Your task to perform on an android device: Search for the best rated vacuums on Target Image 0: 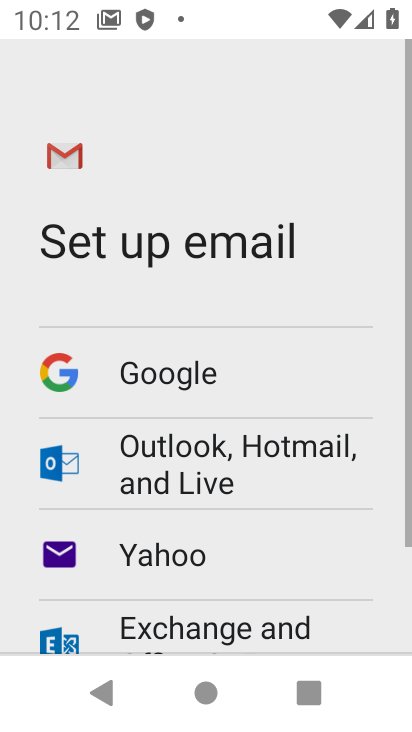
Step 0: press home button
Your task to perform on an android device: Search for the best rated vacuums on Target Image 1: 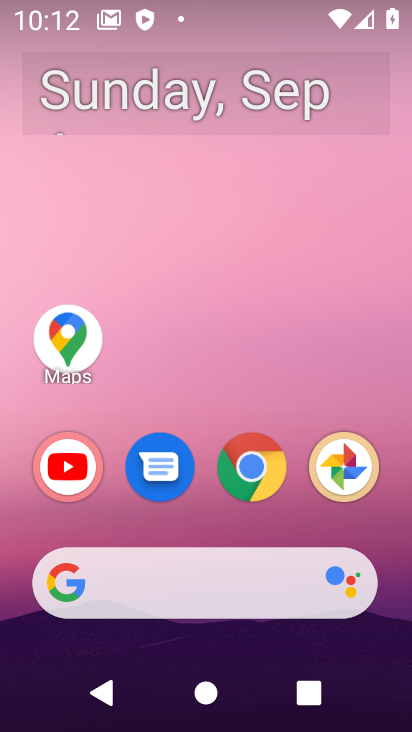
Step 1: click (269, 466)
Your task to perform on an android device: Search for the best rated vacuums on Target Image 2: 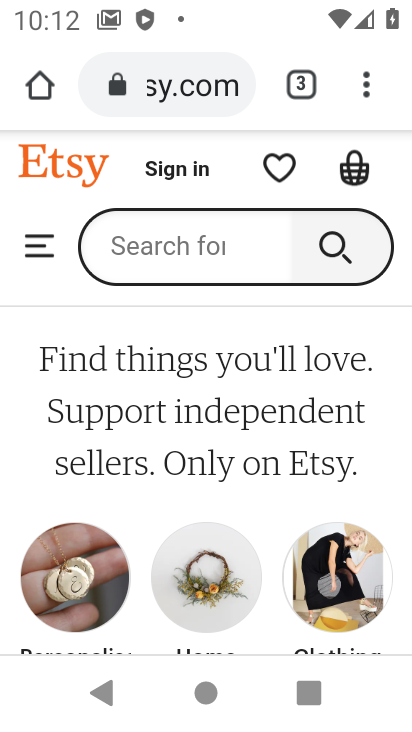
Step 2: click (157, 83)
Your task to perform on an android device: Search for the best rated vacuums on Target Image 3: 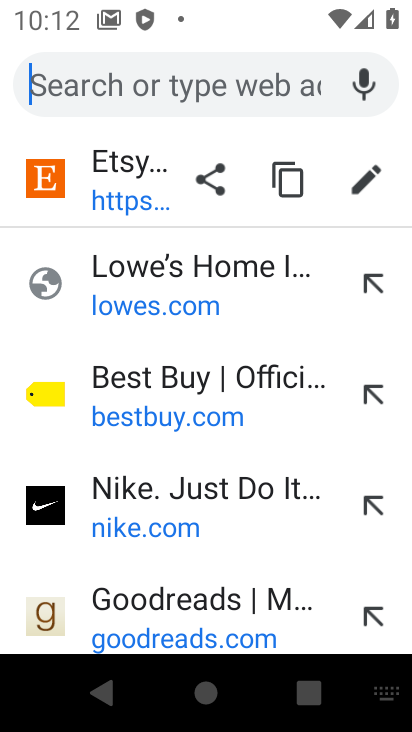
Step 3: type "target"
Your task to perform on an android device: Search for the best rated vacuums on Target Image 4: 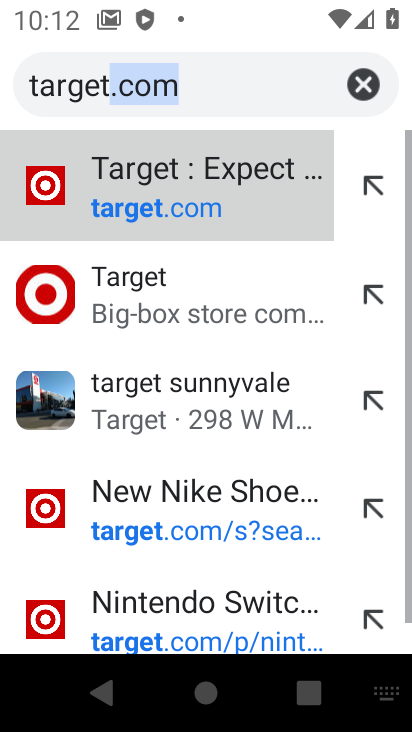
Step 4: type ""
Your task to perform on an android device: Search for the best rated vacuums on Target Image 5: 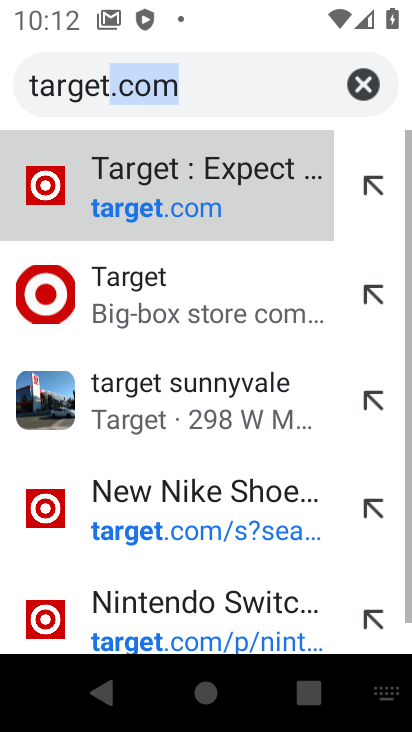
Step 5: click (120, 223)
Your task to perform on an android device: Search for the best rated vacuums on Target Image 6: 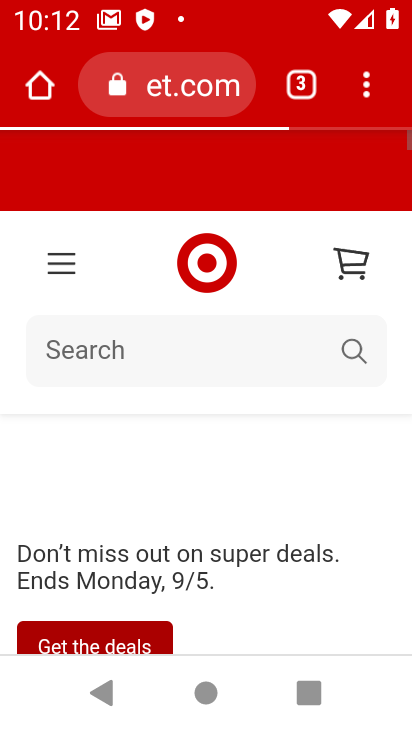
Step 6: click (183, 250)
Your task to perform on an android device: Search for the best rated vacuums on Target Image 7: 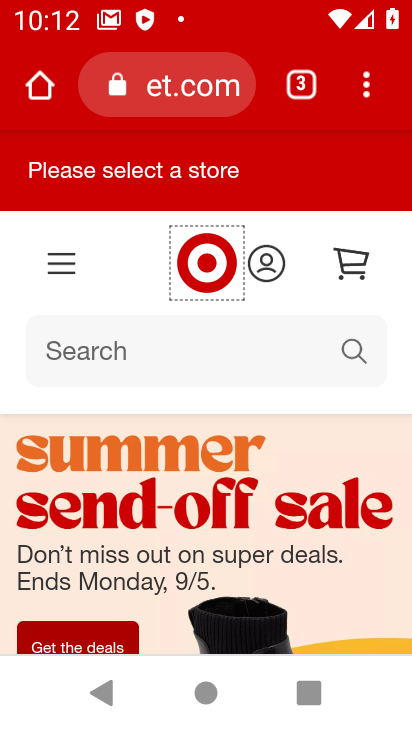
Step 7: click (219, 337)
Your task to perform on an android device: Search for the best rated vacuums on Target Image 8: 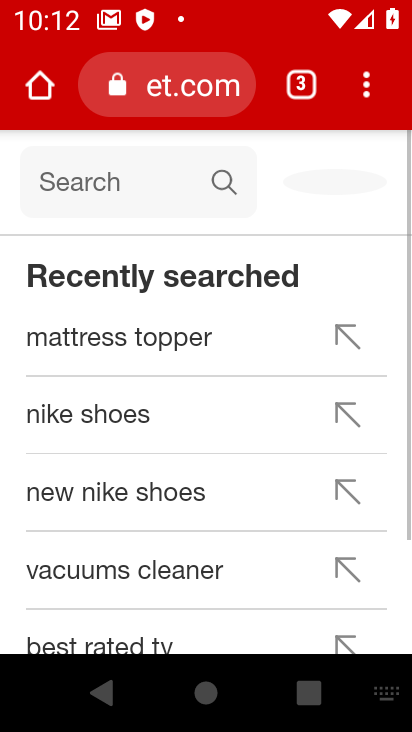
Step 8: click (351, 348)
Your task to perform on an android device: Search for the best rated vacuums on Target Image 9: 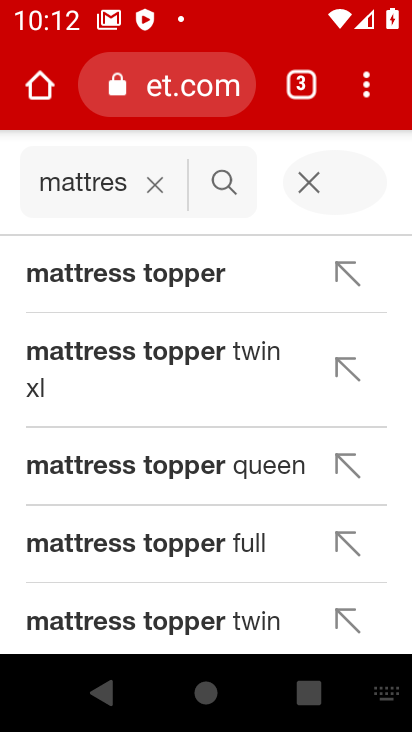
Step 9: click (158, 185)
Your task to perform on an android device: Search for the best rated vacuums on Target Image 10: 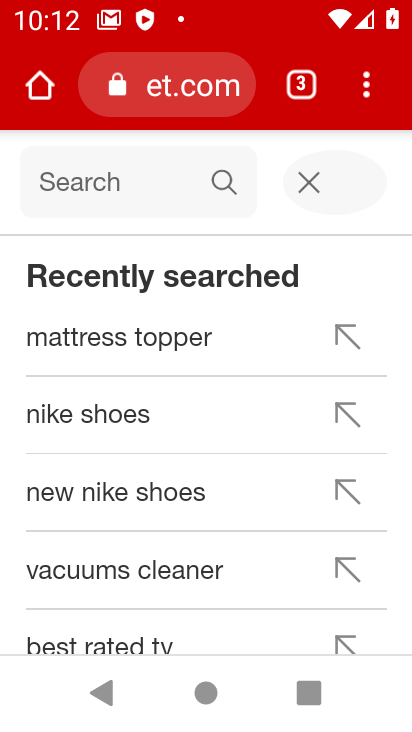
Step 10: click (89, 191)
Your task to perform on an android device: Search for the best rated vacuums on Target Image 11: 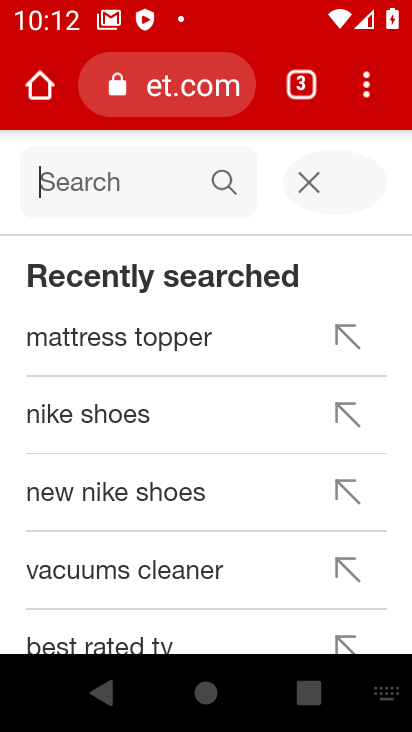
Step 11: type "vaccums"
Your task to perform on an android device: Search for the best rated vacuums on Target Image 12: 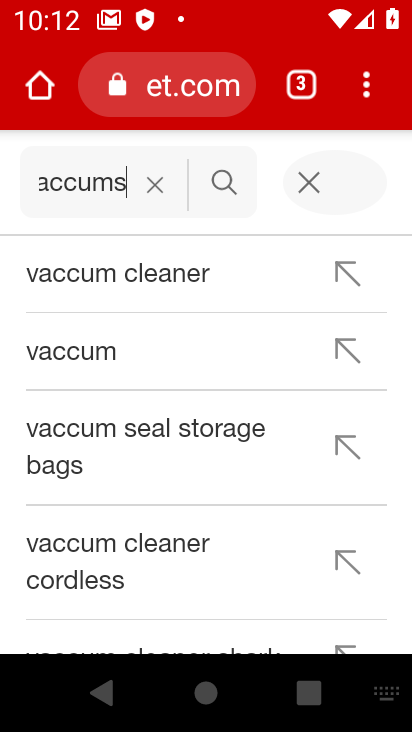
Step 12: type ""
Your task to perform on an android device: Search for the best rated vacuums on Target Image 13: 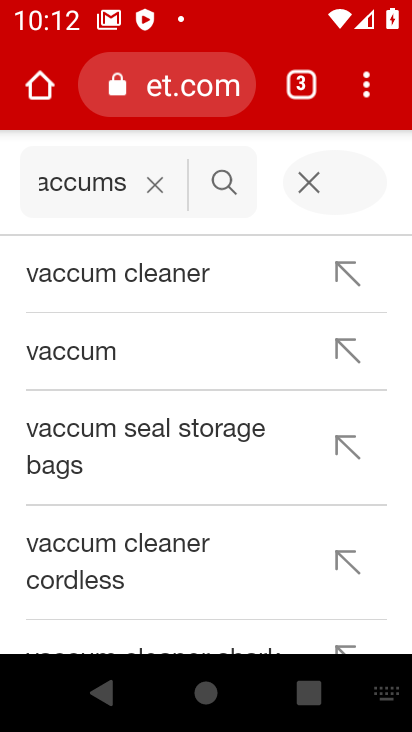
Step 13: click (68, 350)
Your task to perform on an android device: Search for the best rated vacuums on Target Image 14: 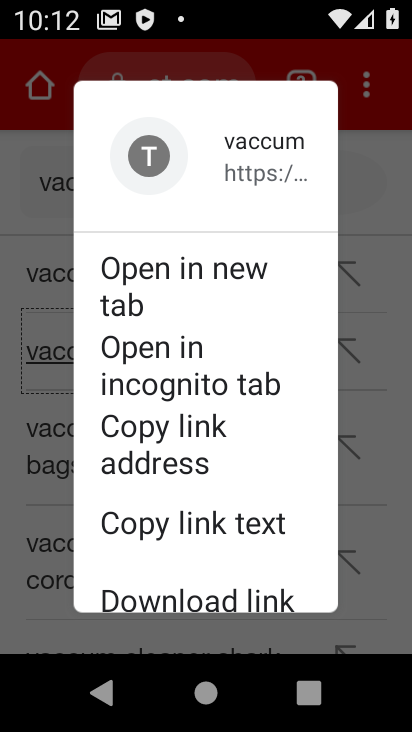
Step 14: click (406, 384)
Your task to perform on an android device: Search for the best rated vacuums on Target Image 15: 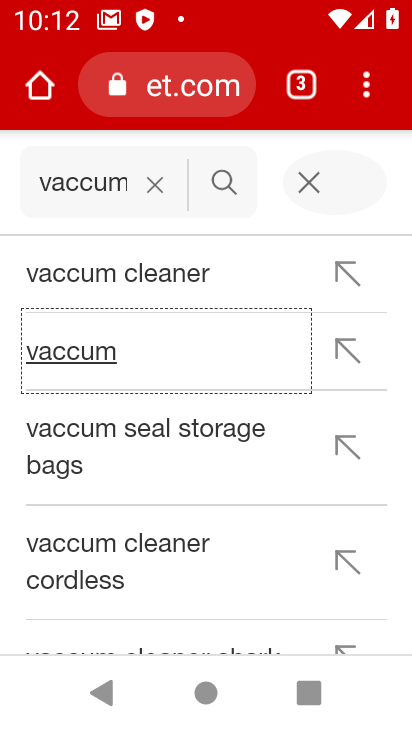
Step 15: press enter
Your task to perform on an android device: Search for the best rated vacuums on Target Image 16: 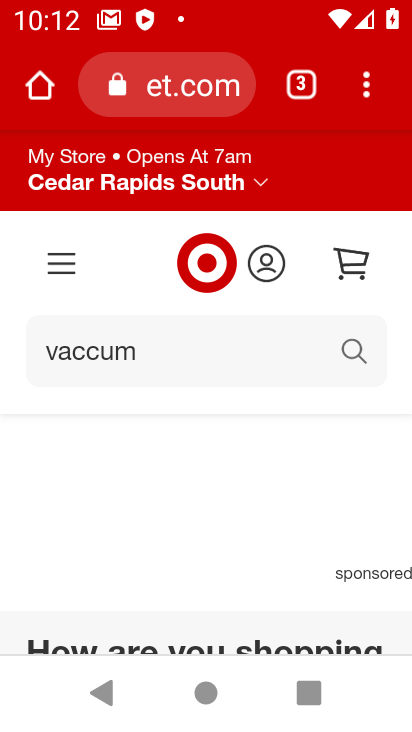
Step 16: drag from (236, 547) to (309, 140)
Your task to perform on an android device: Search for the best rated vacuums on Target Image 17: 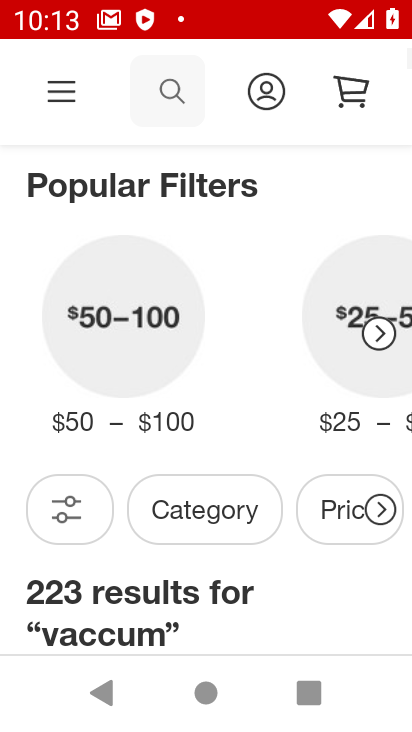
Step 17: drag from (349, 447) to (378, 228)
Your task to perform on an android device: Search for the best rated vacuums on Target Image 18: 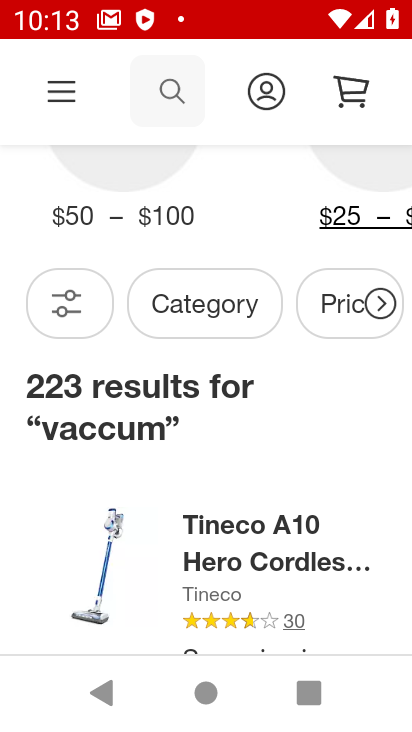
Step 18: click (377, 298)
Your task to perform on an android device: Search for the best rated vacuums on Target Image 19: 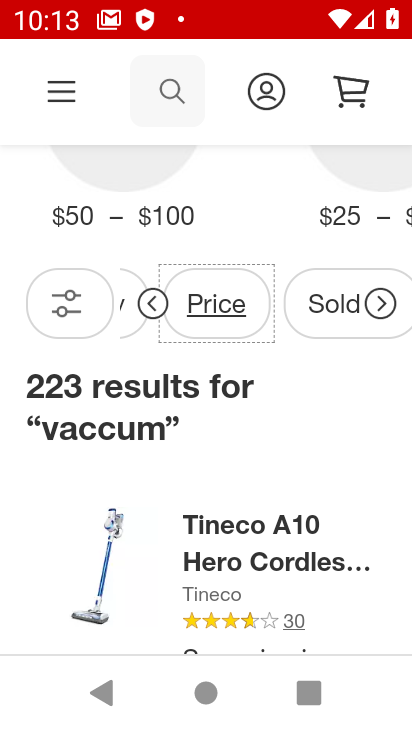
Step 19: click (377, 298)
Your task to perform on an android device: Search for the best rated vacuums on Target Image 20: 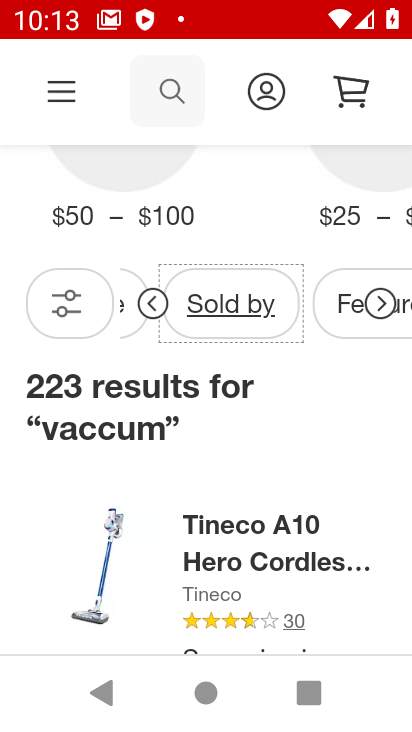
Step 20: click (377, 298)
Your task to perform on an android device: Search for the best rated vacuums on Target Image 21: 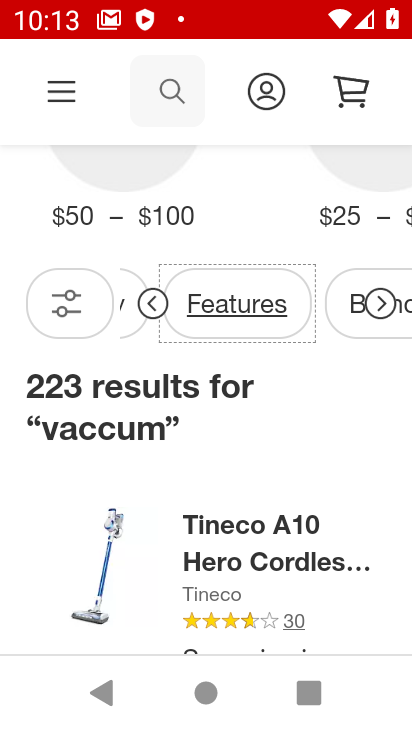
Step 21: click (377, 298)
Your task to perform on an android device: Search for the best rated vacuums on Target Image 22: 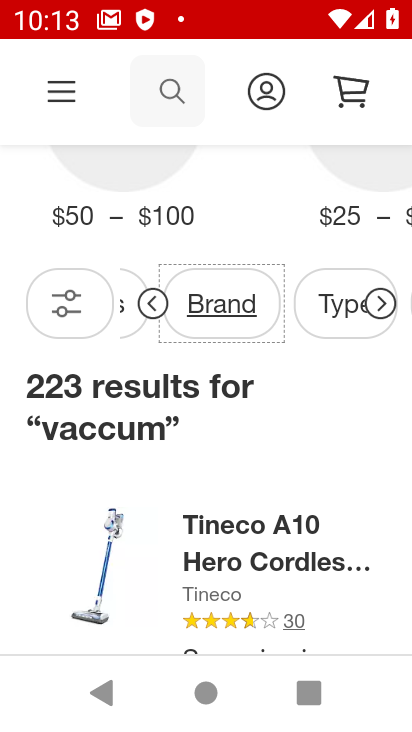
Step 22: click (192, 294)
Your task to perform on an android device: Search for the best rated vacuums on Target Image 23: 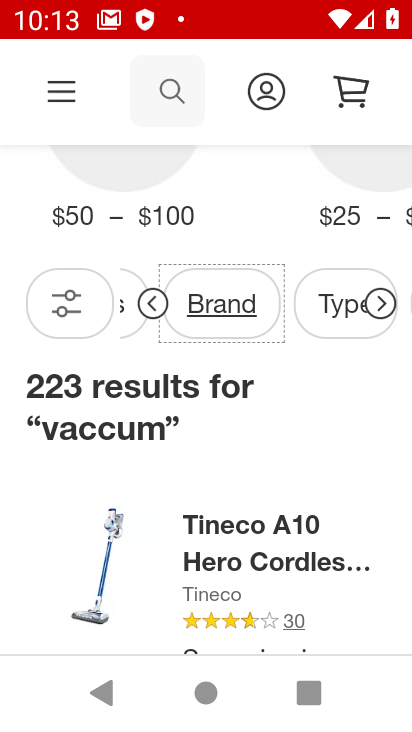
Step 23: click (205, 307)
Your task to perform on an android device: Search for the best rated vacuums on Target Image 24: 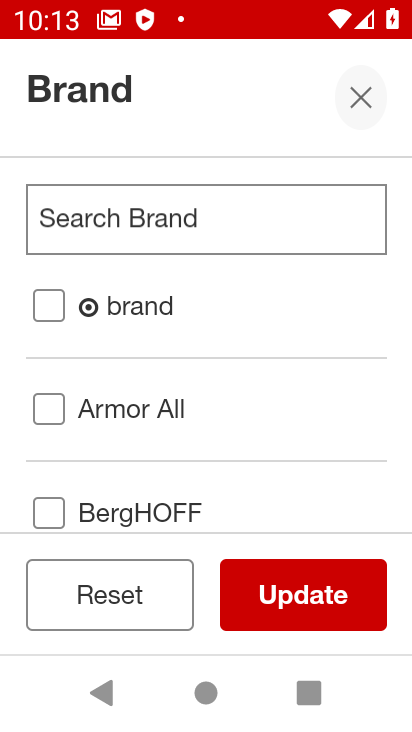
Step 24: drag from (241, 446) to (271, 224)
Your task to perform on an android device: Search for the best rated vacuums on Target Image 25: 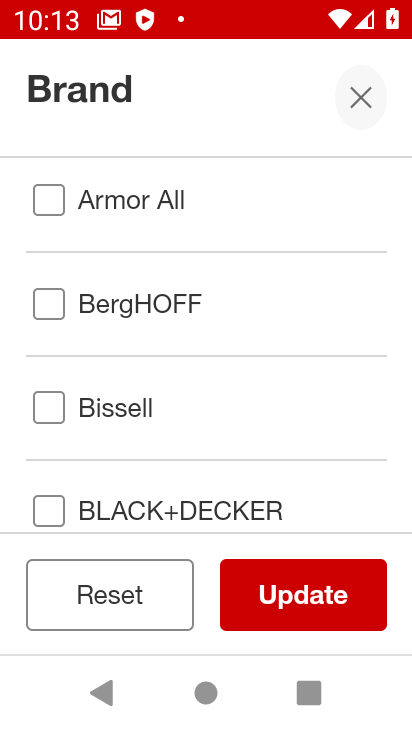
Step 25: drag from (267, 277) to (272, 541)
Your task to perform on an android device: Search for the best rated vacuums on Target Image 26: 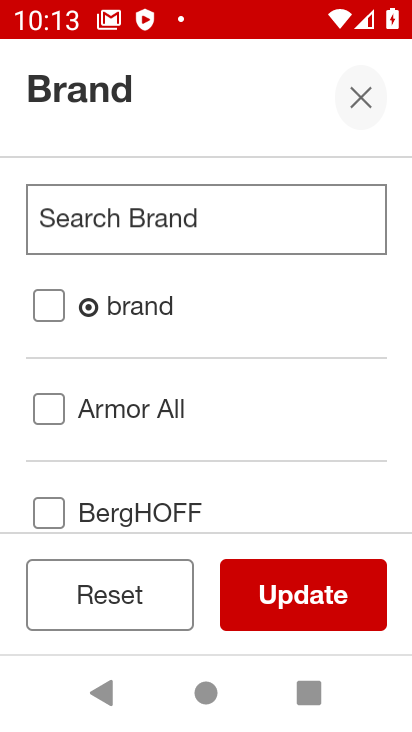
Step 26: drag from (198, 449) to (309, 183)
Your task to perform on an android device: Search for the best rated vacuums on Target Image 27: 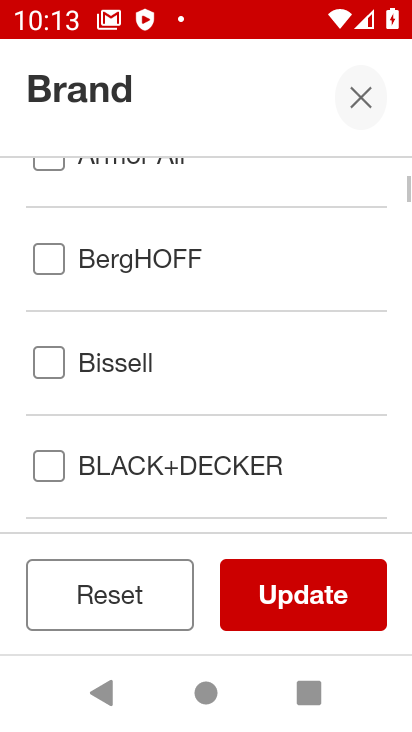
Step 27: drag from (152, 442) to (227, 149)
Your task to perform on an android device: Search for the best rated vacuums on Target Image 28: 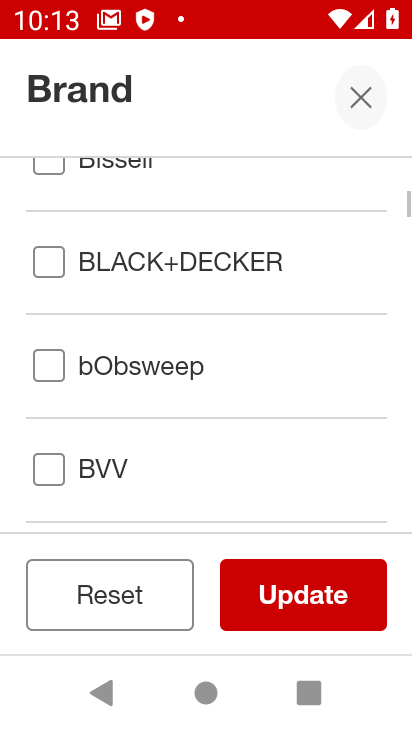
Step 28: drag from (206, 452) to (220, 260)
Your task to perform on an android device: Search for the best rated vacuums on Target Image 29: 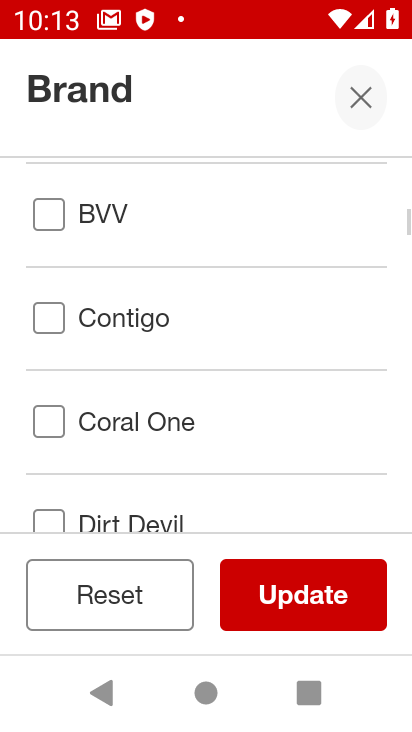
Step 29: drag from (229, 434) to (239, 196)
Your task to perform on an android device: Search for the best rated vacuums on Target Image 30: 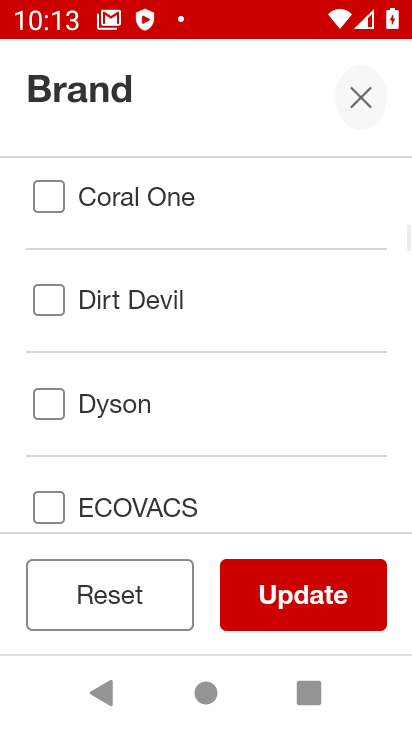
Step 30: drag from (178, 452) to (218, 370)
Your task to perform on an android device: Search for the best rated vacuums on Target Image 31: 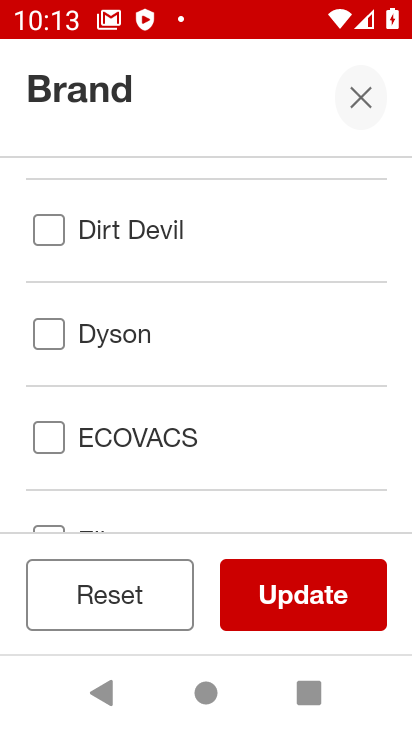
Step 31: drag from (293, 90) to (246, 101)
Your task to perform on an android device: Search for the best rated vacuums on Target Image 32: 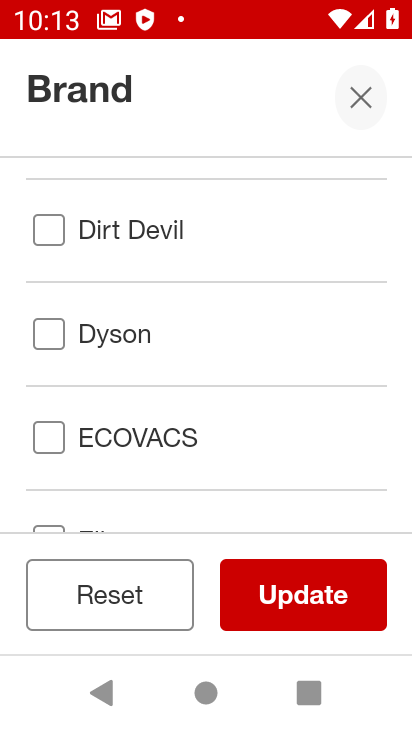
Step 32: drag from (265, 494) to (289, 199)
Your task to perform on an android device: Search for the best rated vacuums on Target Image 33: 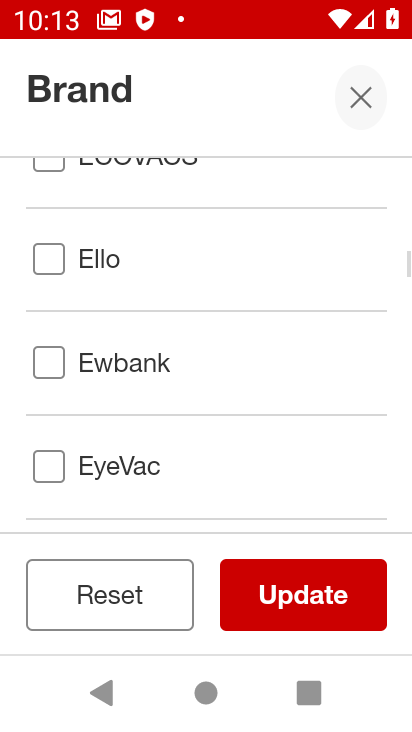
Step 33: drag from (193, 463) to (216, 205)
Your task to perform on an android device: Search for the best rated vacuums on Target Image 34: 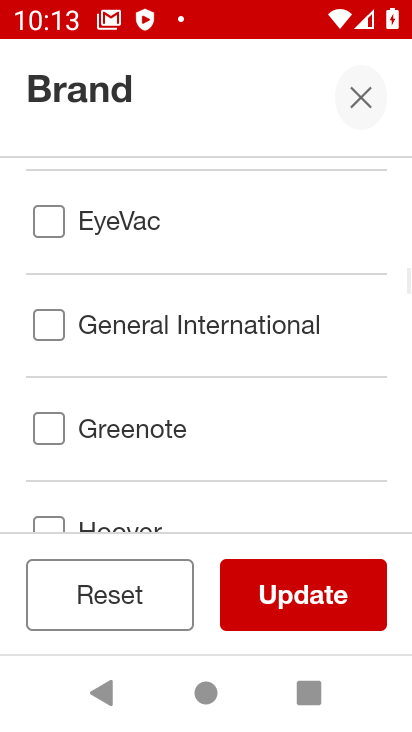
Step 34: drag from (220, 431) to (197, 210)
Your task to perform on an android device: Search for the best rated vacuums on Target Image 35: 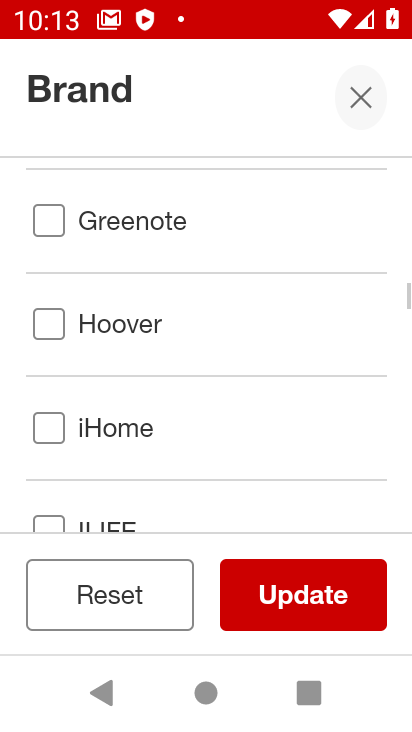
Step 35: drag from (211, 477) to (153, 222)
Your task to perform on an android device: Search for the best rated vacuums on Target Image 36: 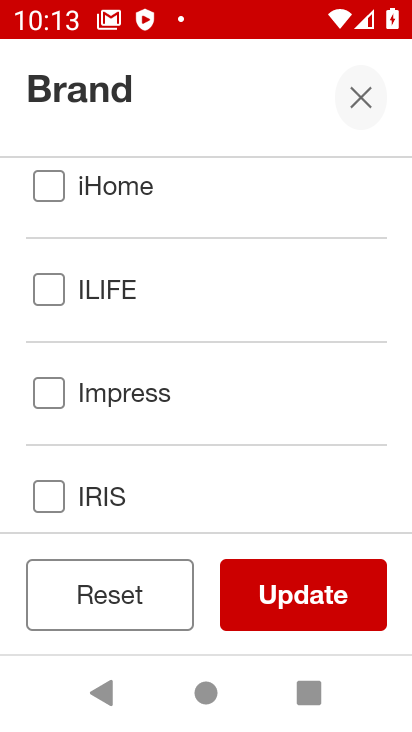
Step 36: click (362, 97)
Your task to perform on an android device: Search for the best rated vacuums on Target Image 37: 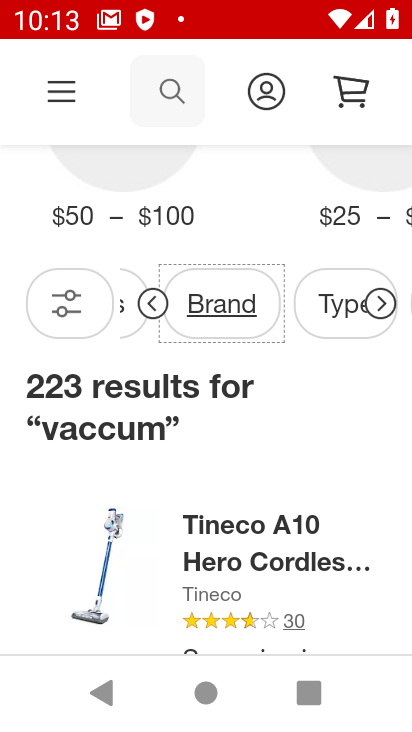
Step 37: task complete